Your task to perform on an android device: turn on translation in the chrome app Image 0: 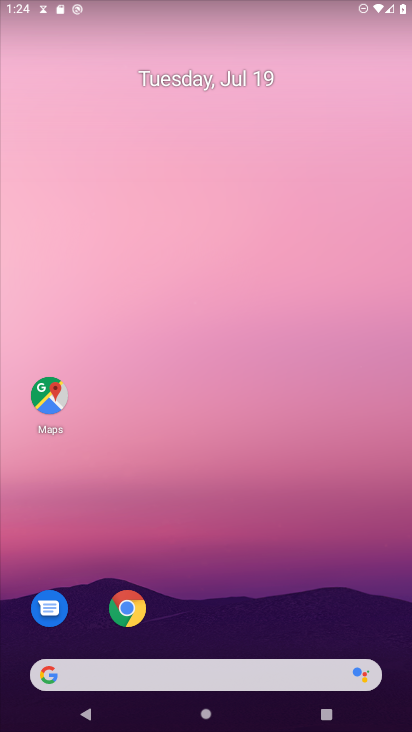
Step 0: drag from (376, 419) to (365, 0)
Your task to perform on an android device: turn on translation in the chrome app Image 1: 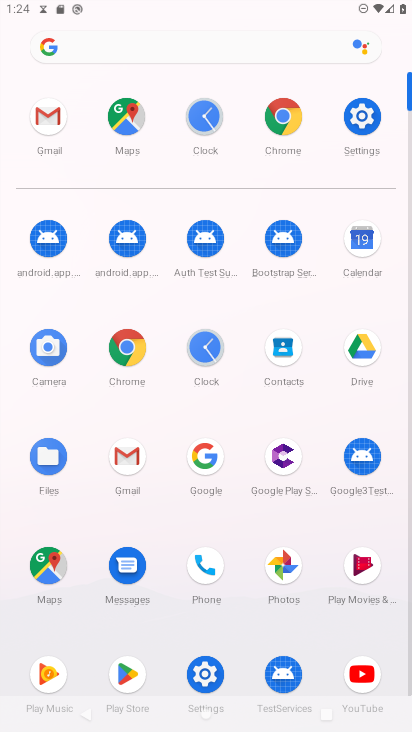
Step 1: click (129, 351)
Your task to perform on an android device: turn on translation in the chrome app Image 2: 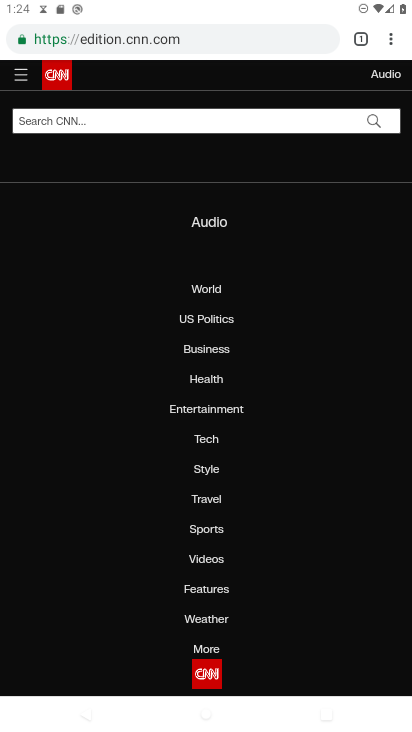
Step 2: drag from (387, 33) to (239, 444)
Your task to perform on an android device: turn on translation in the chrome app Image 3: 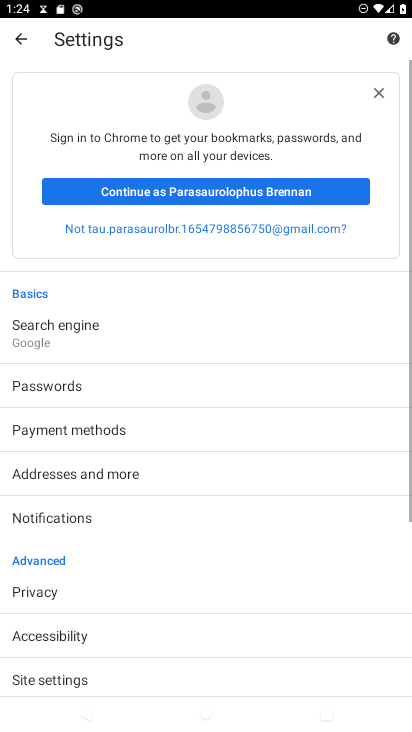
Step 3: drag from (159, 549) to (219, 136)
Your task to perform on an android device: turn on translation in the chrome app Image 4: 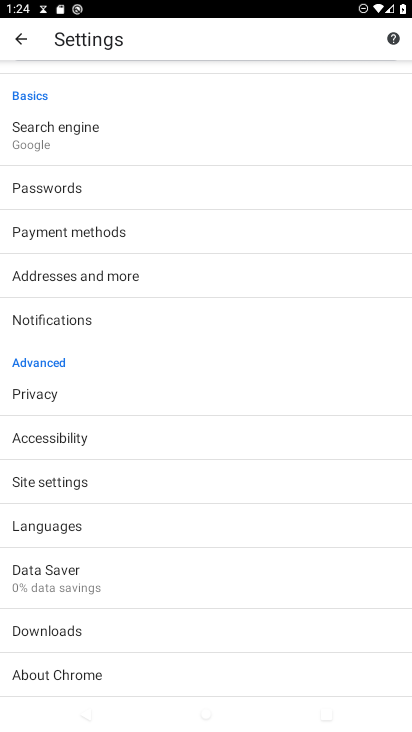
Step 4: click (75, 536)
Your task to perform on an android device: turn on translation in the chrome app Image 5: 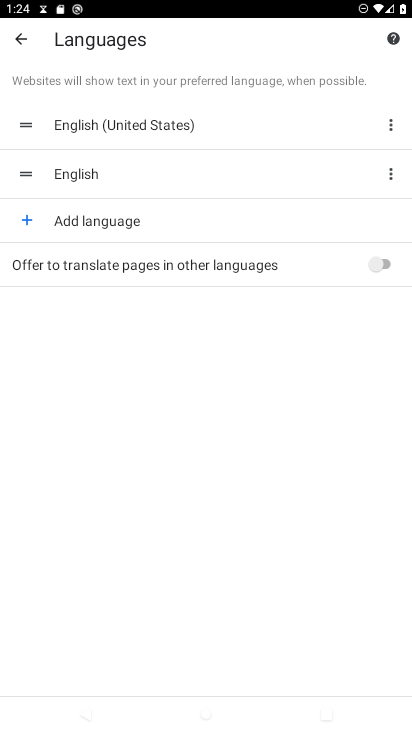
Step 5: click (383, 262)
Your task to perform on an android device: turn on translation in the chrome app Image 6: 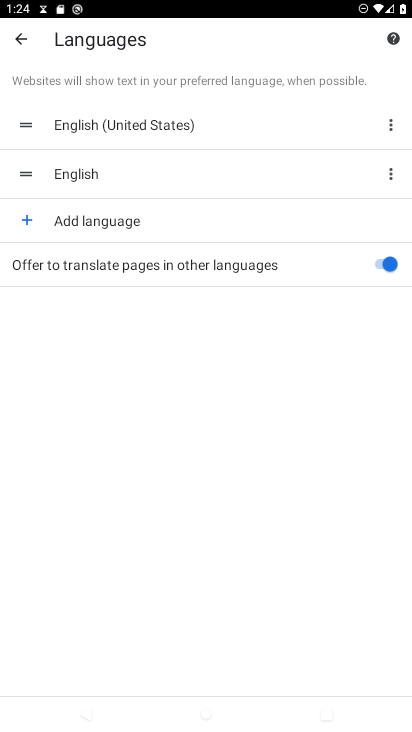
Step 6: task complete